Your task to perform on an android device: turn on notifications settings in the gmail app Image 0: 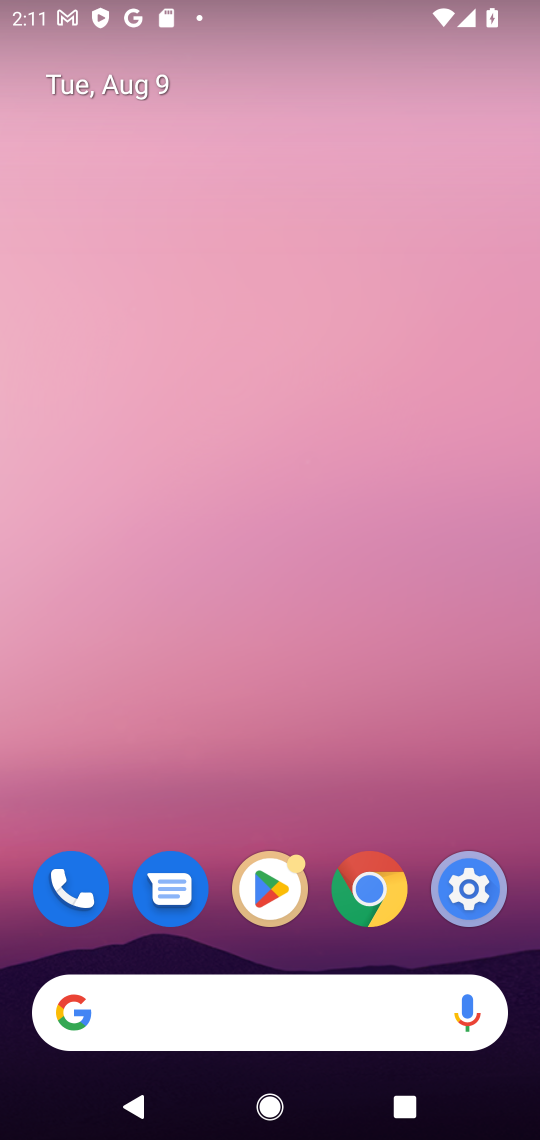
Step 0: drag from (271, 786) to (279, 0)
Your task to perform on an android device: turn on notifications settings in the gmail app Image 1: 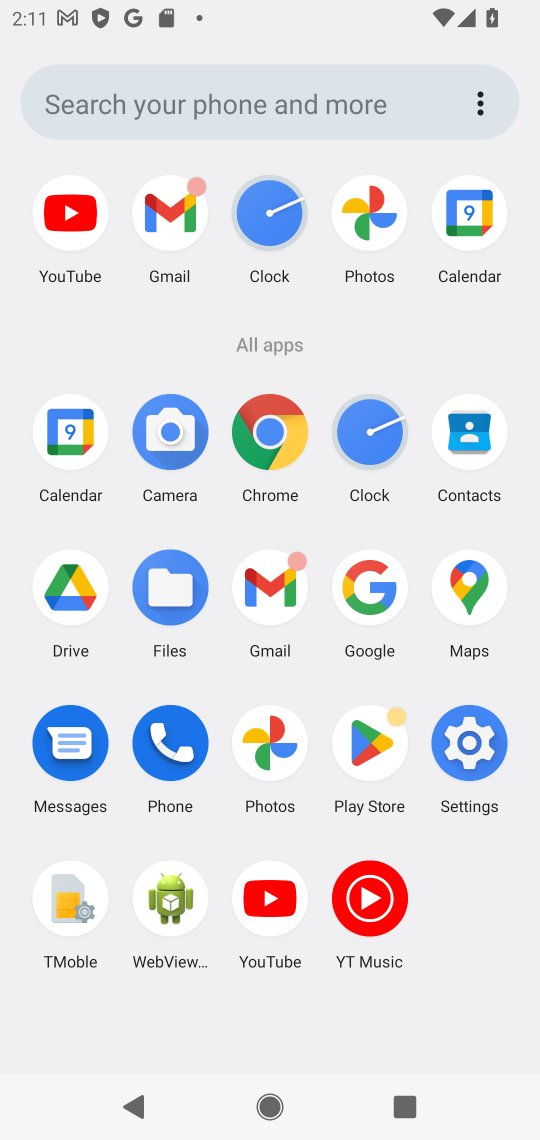
Step 1: click (173, 211)
Your task to perform on an android device: turn on notifications settings in the gmail app Image 2: 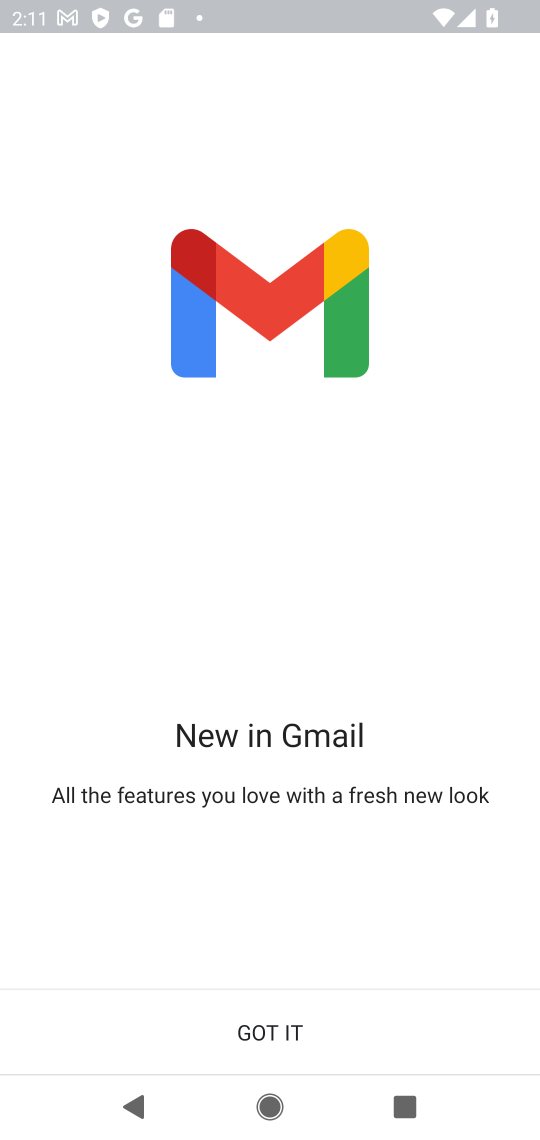
Step 2: click (285, 1027)
Your task to perform on an android device: turn on notifications settings in the gmail app Image 3: 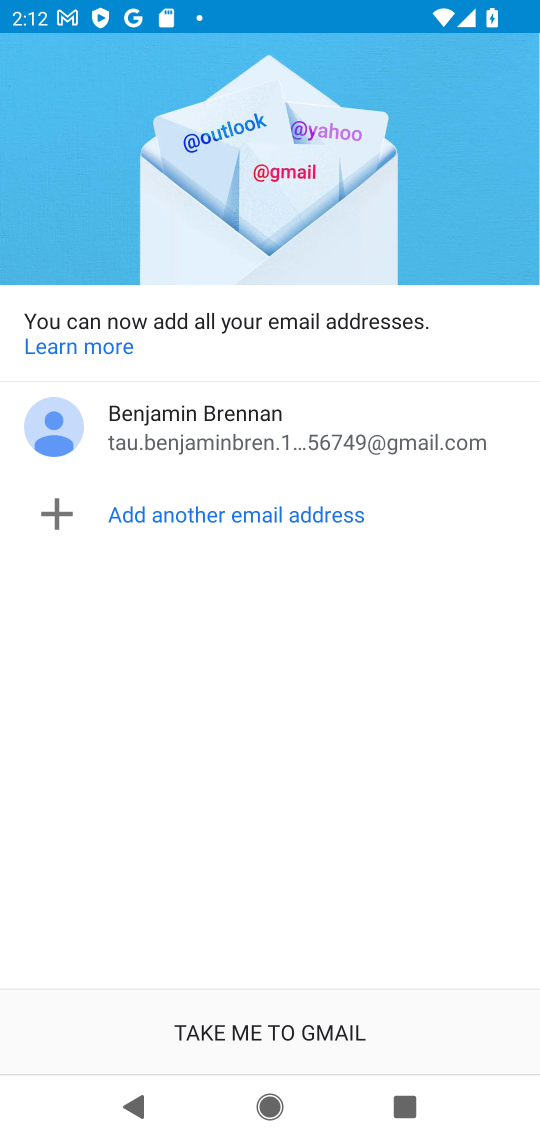
Step 3: click (285, 1029)
Your task to perform on an android device: turn on notifications settings in the gmail app Image 4: 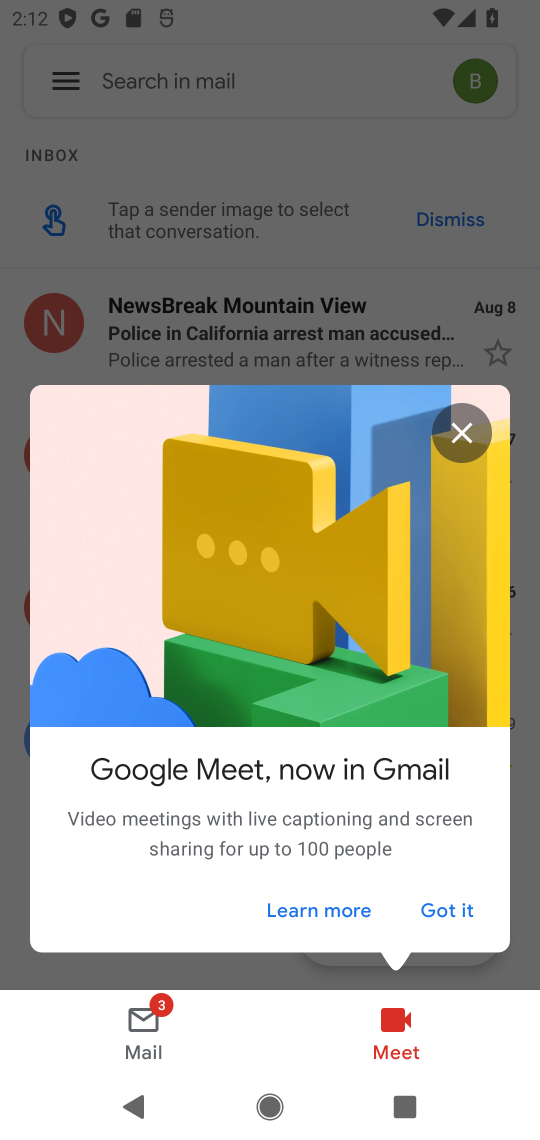
Step 4: click (475, 439)
Your task to perform on an android device: turn on notifications settings in the gmail app Image 5: 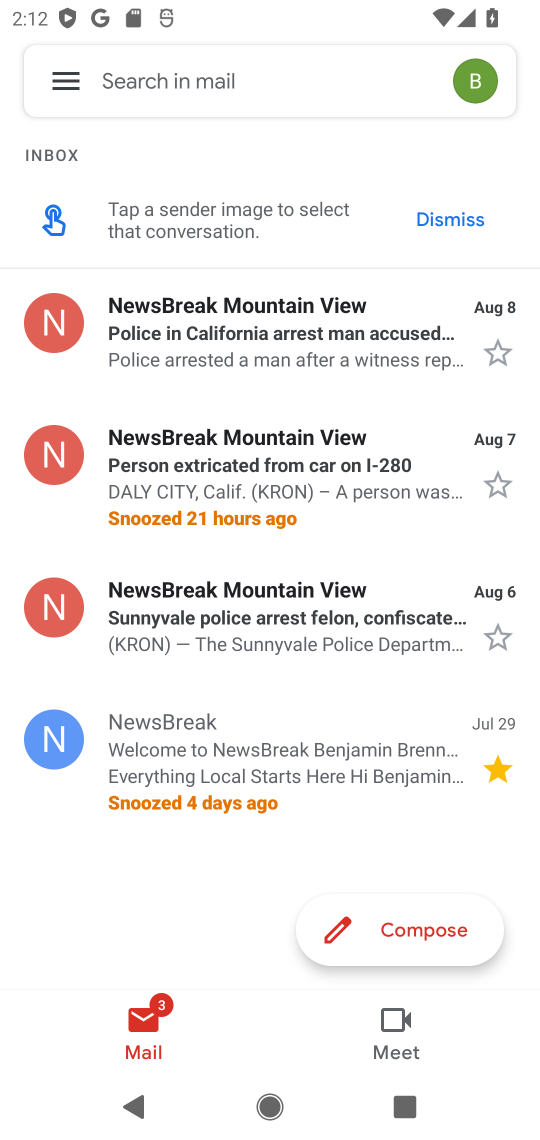
Step 5: click (71, 81)
Your task to perform on an android device: turn on notifications settings in the gmail app Image 6: 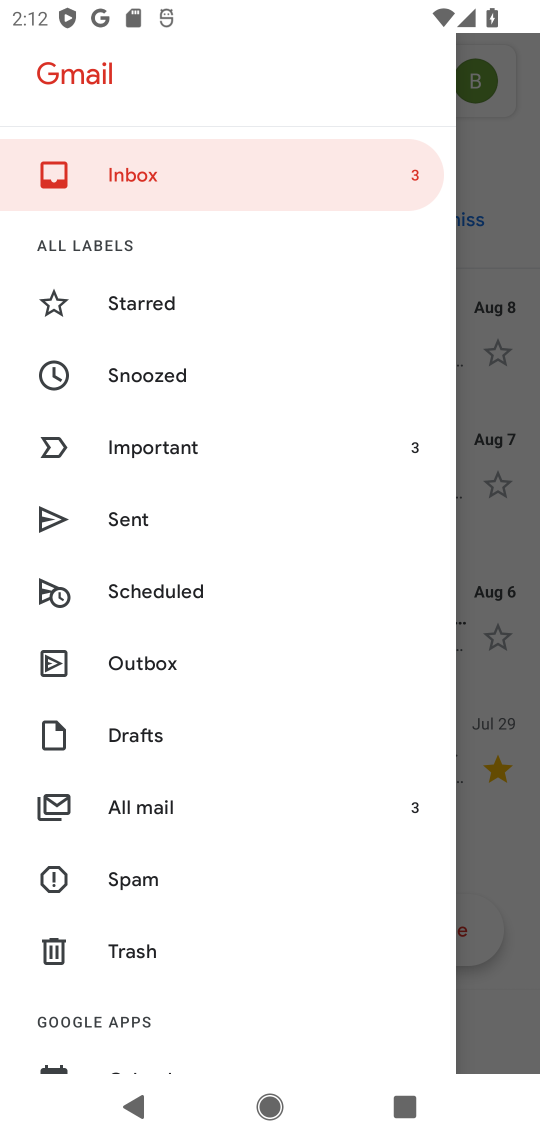
Step 6: drag from (198, 764) to (229, 94)
Your task to perform on an android device: turn on notifications settings in the gmail app Image 7: 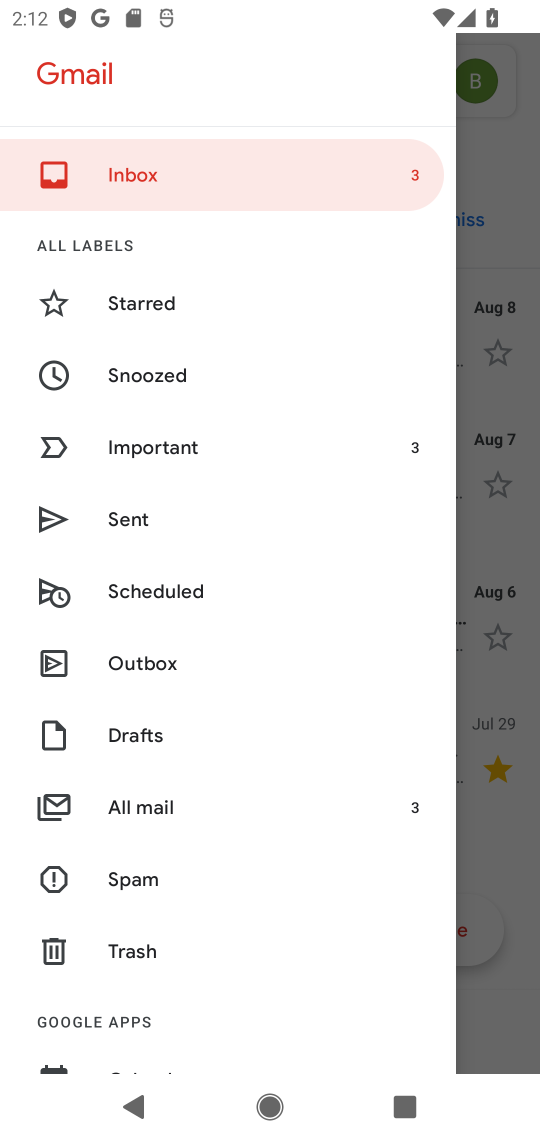
Step 7: drag from (236, 877) to (301, 45)
Your task to perform on an android device: turn on notifications settings in the gmail app Image 8: 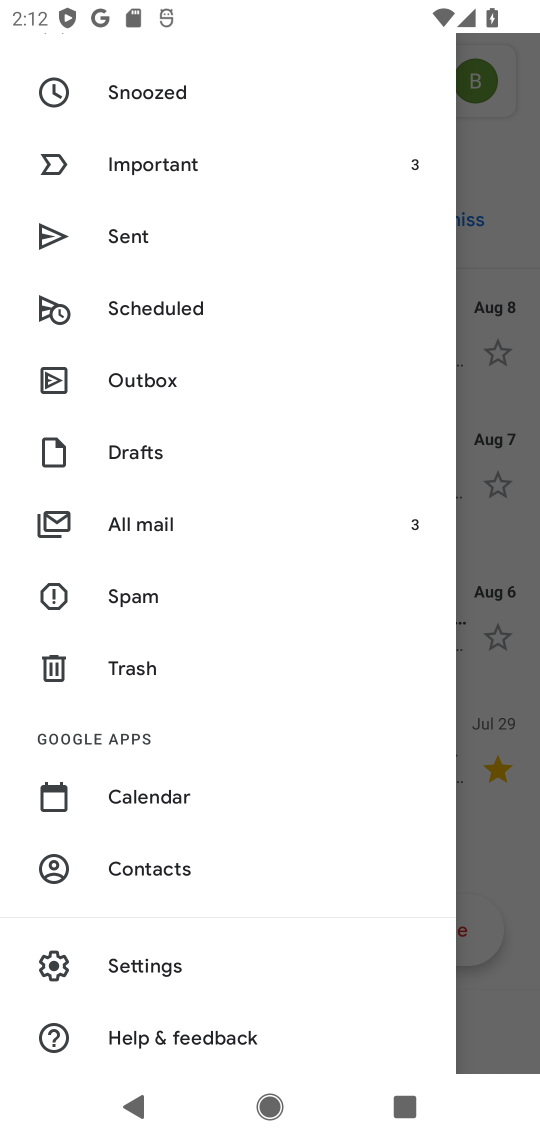
Step 8: click (165, 959)
Your task to perform on an android device: turn on notifications settings in the gmail app Image 9: 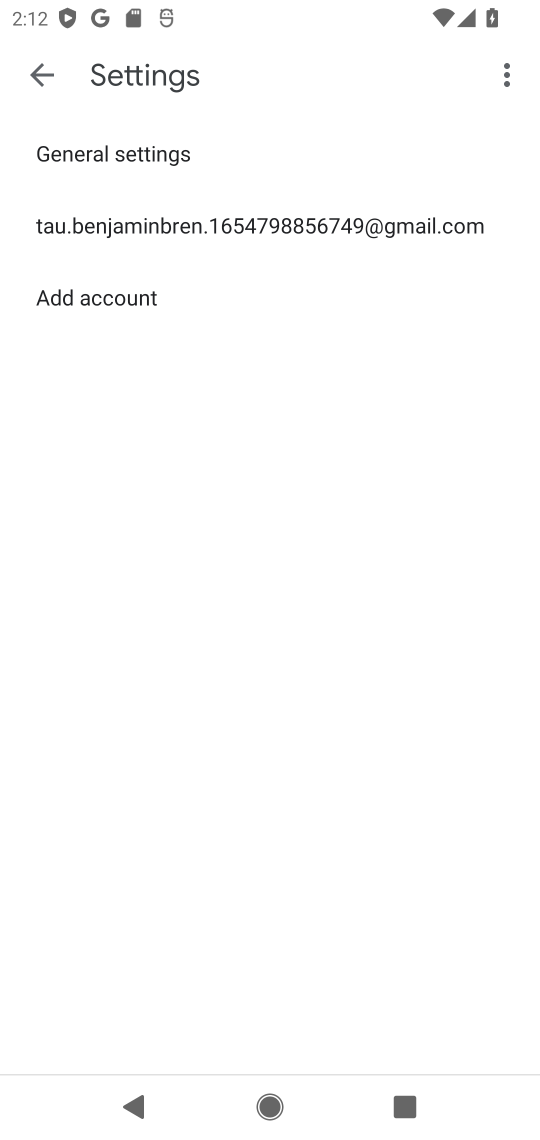
Step 9: click (286, 205)
Your task to perform on an android device: turn on notifications settings in the gmail app Image 10: 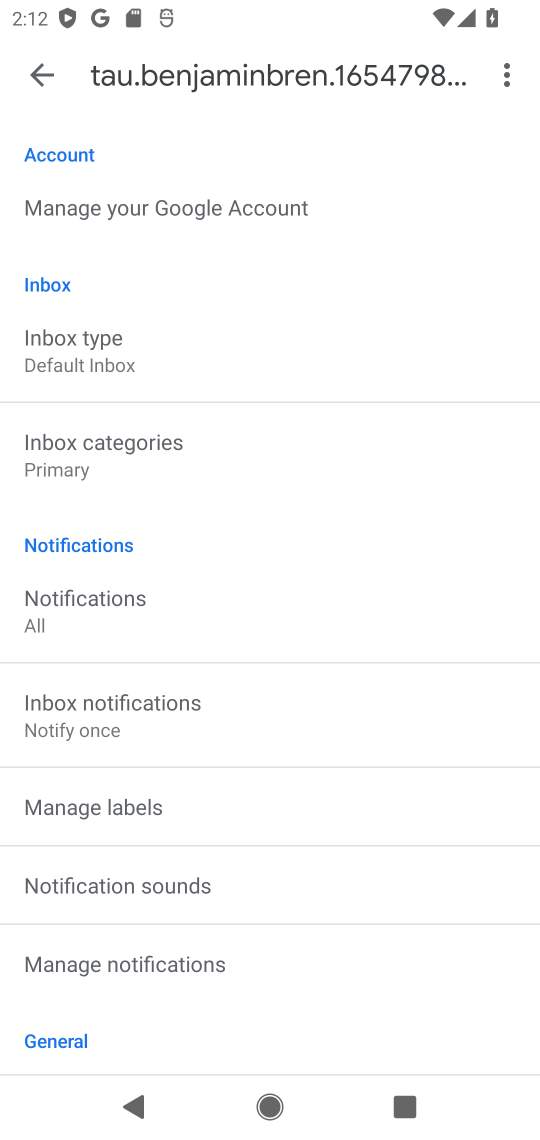
Step 10: click (203, 954)
Your task to perform on an android device: turn on notifications settings in the gmail app Image 11: 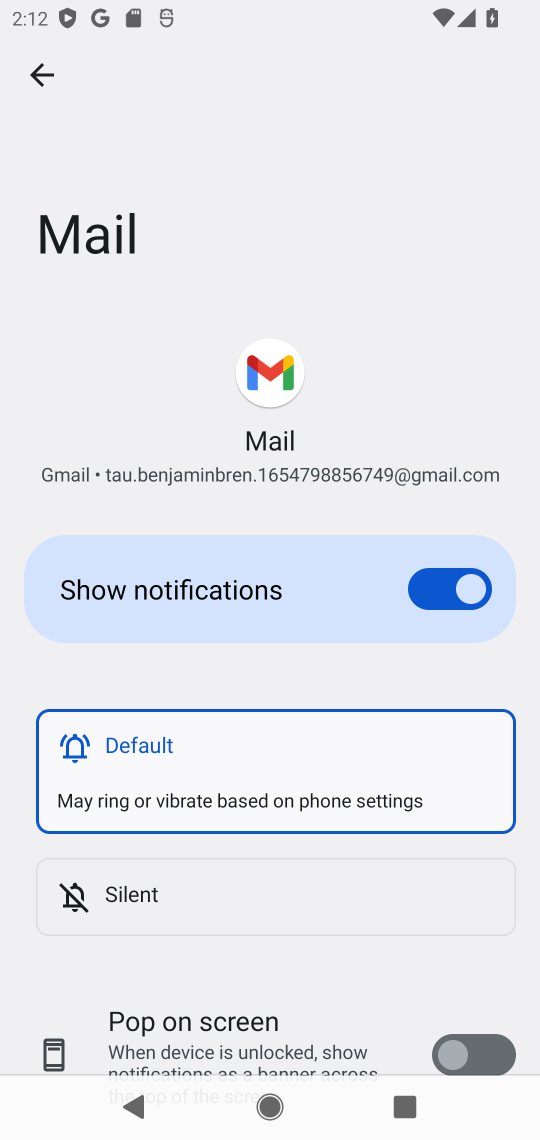
Step 11: task complete